Your task to perform on an android device: Open CNN.com Image 0: 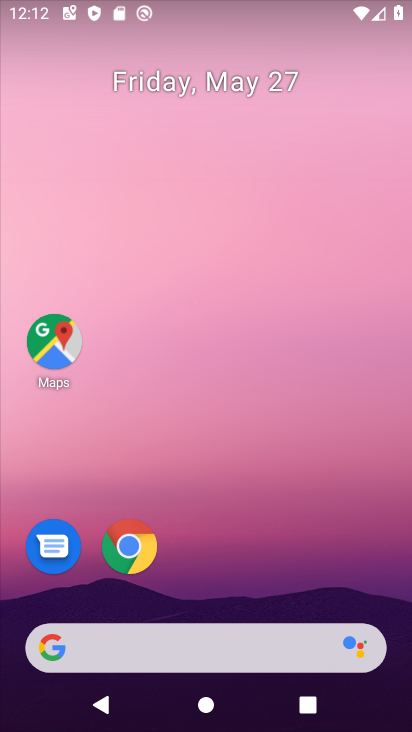
Step 0: click (156, 639)
Your task to perform on an android device: Open CNN.com Image 1: 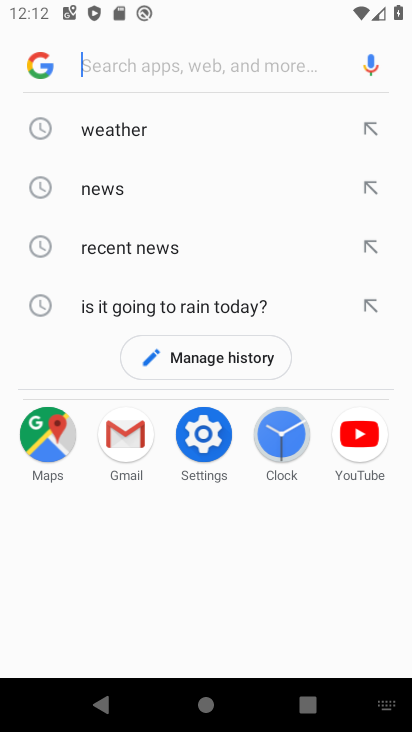
Step 1: type "cnn.com"
Your task to perform on an android device: Open CNN.com Image 2: 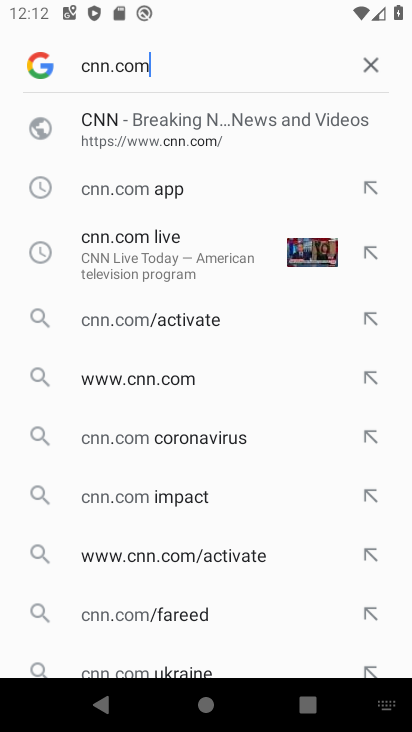
Step 2: click (154, 138)
Your task to perform on an android device: Open CNN.com Image 3: 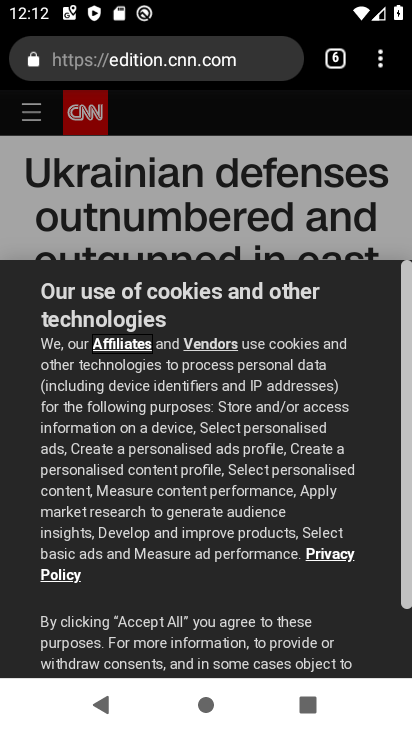
Step 3: task complete